Your task to perform on an android device: Search for seafood restaurants on Google Maps Image 0: 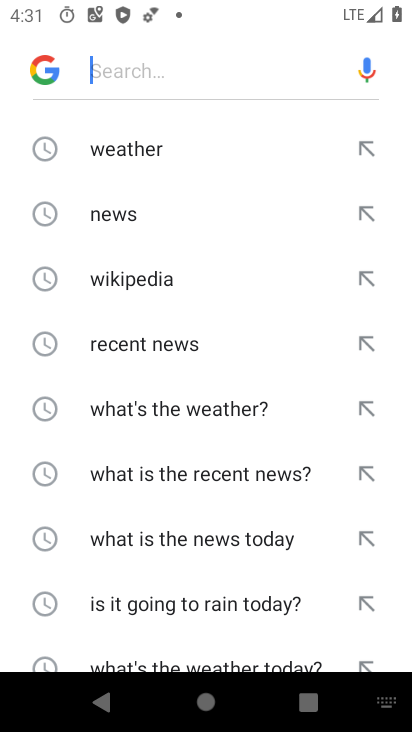
Step 0: press home button
Your task to perform on an android device: Search for seafood restaurants on Google Maps Image 1: 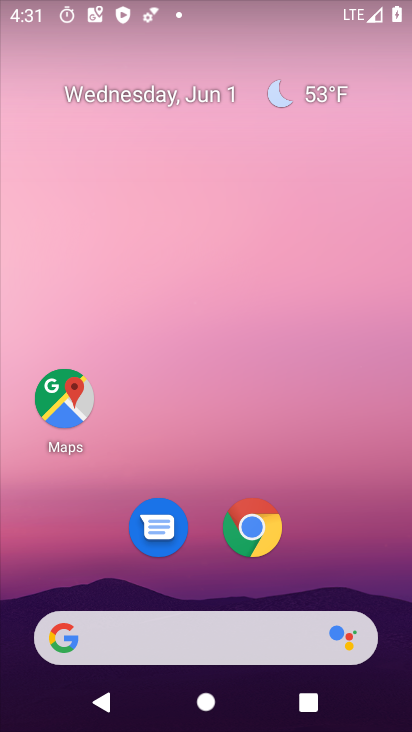
Step 1: drag from (326, 549) to (374, 96)
Your task to perform on an android device: Search for seafood restaurants on Google Maps Image 2: 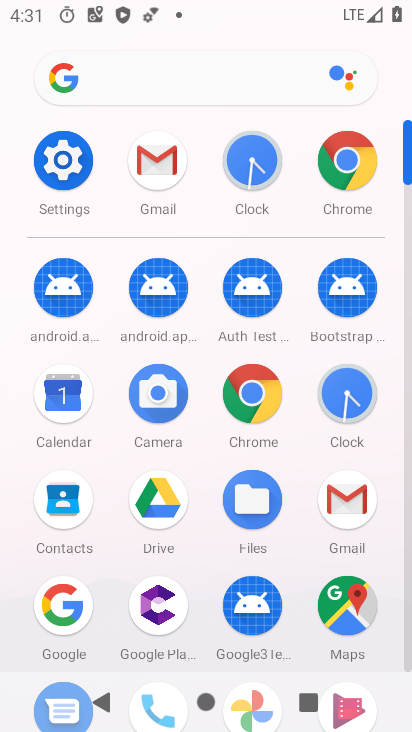
Step 2: click (342, 599)
Your task to perform on an android device: Search for seafood restaurants on Google Maps Image 3: 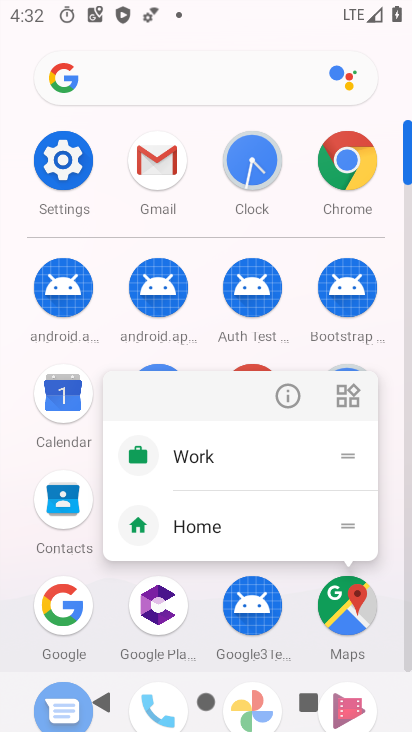
Step 3: click (357, 600)
Your task to perform on an android device: Search for seafood restaurants on Google Maps Image 4: 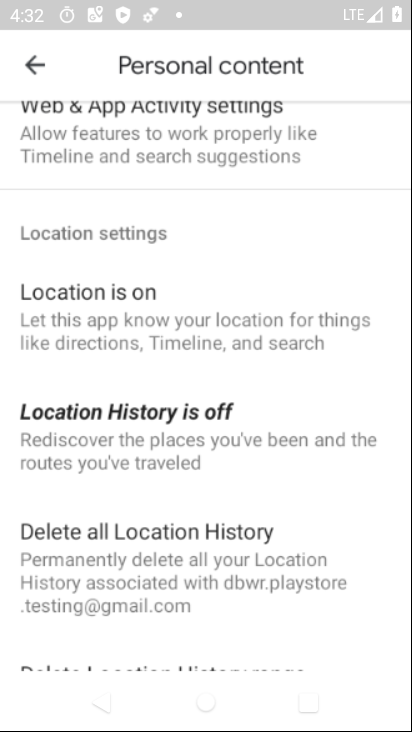
Step 4: click (357, 600)
Your task to perform on an android device: Search for seafood restaurants on Google Maps Image 5: 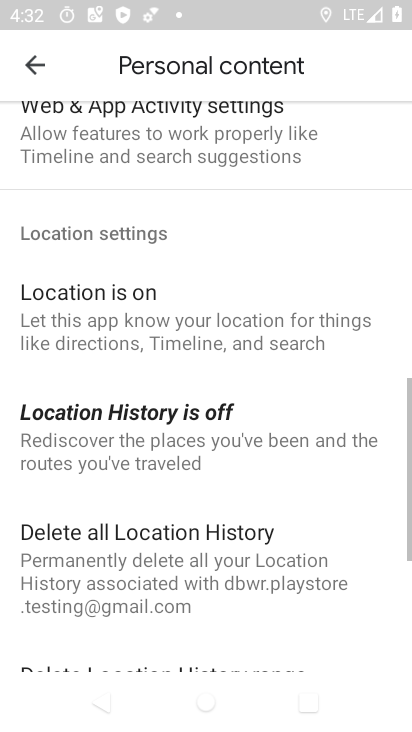
Step 5: click (28, 61)
Your task to perform on an android device: Search for seafood restaurants on Google Maps Image 6: 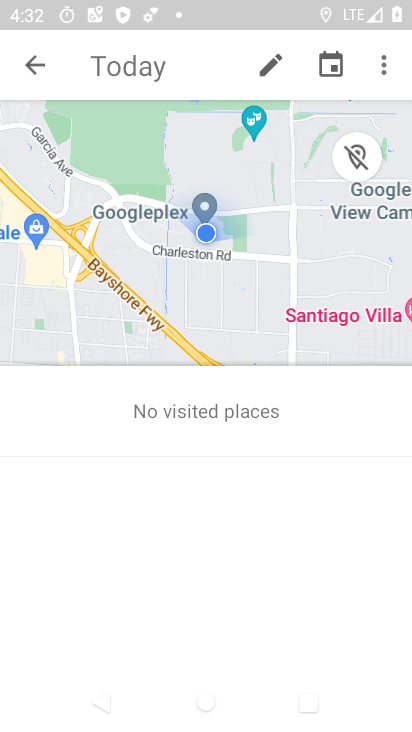
Step 6: click (30, 63)
Your task to perform on an android device: Search for seafood restaurants on Google Maps Image 7: 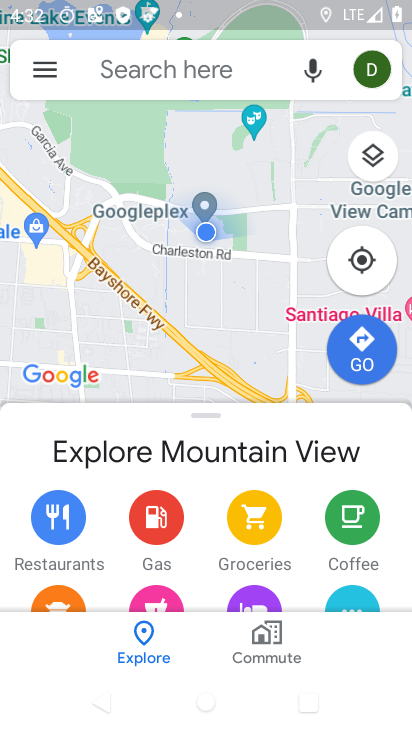
Step 7: click (125, 70)
Your task to perform on an android device: Search for seafood restaurants on Google Maps Image 8: 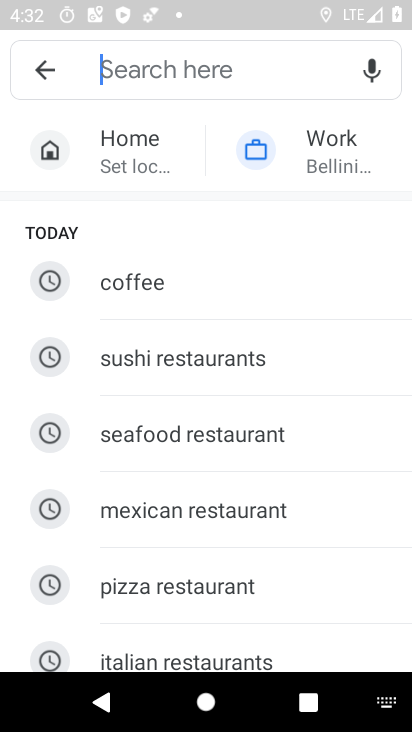
Step 8: type "seafood restaurants"
Your task to perform on an android device: Search for seafood restaurants on Google Maps Image 9: 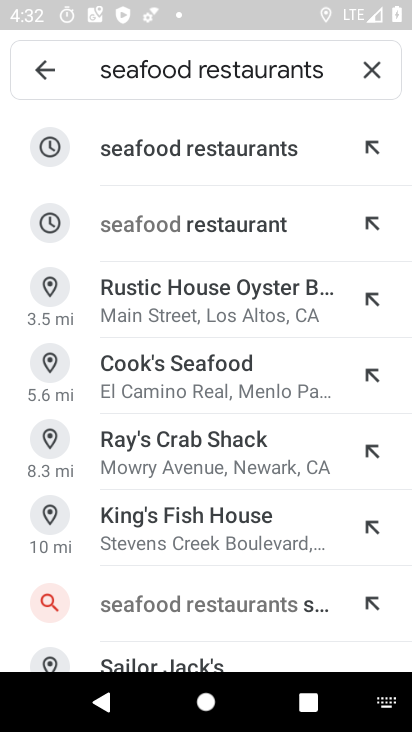
Step 9: click (194, 145)
Your task to perform on an android device: Search for seafood restaurants on Google Maps Image 10: 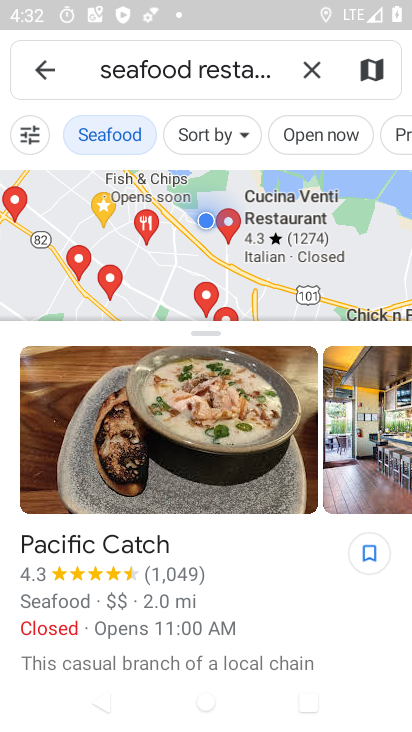
Step 10: task complete